Your task to perform on an android device: turn off data saver in the chrome app Image 0: 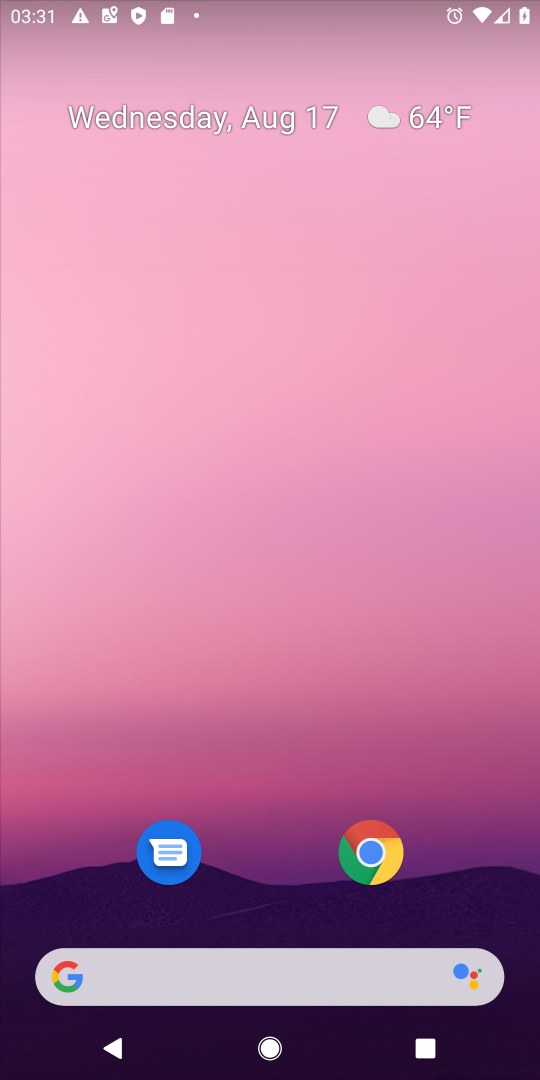
Step 0: drag from (239, 817) to (266, 37)
Your task to perform on an android device: turn off data saver in the chrome app Image 1: 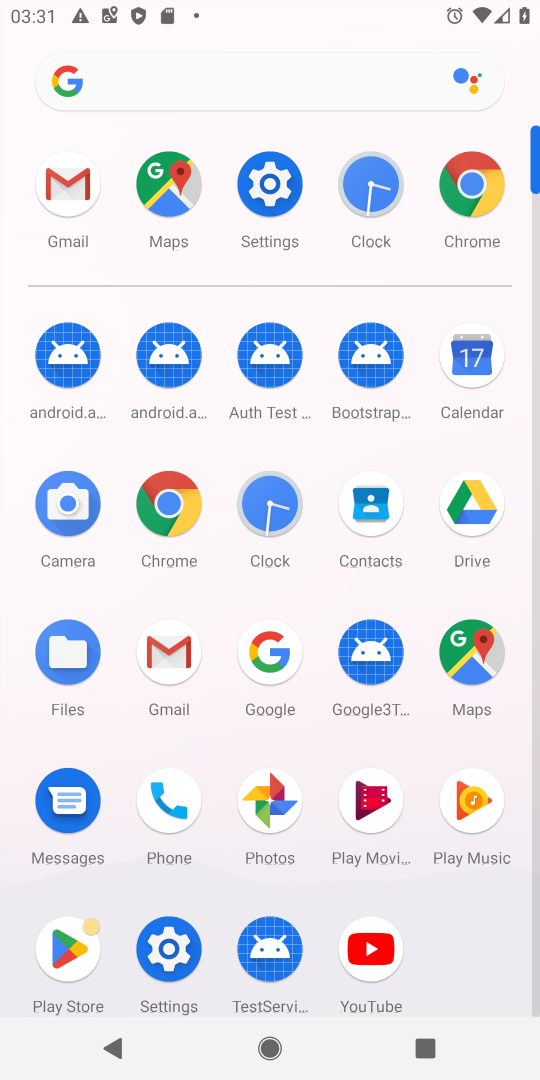
Step 1: click (165, 508)
Your task to perform on an android device: turn off data saver in the chrome app Image 2: 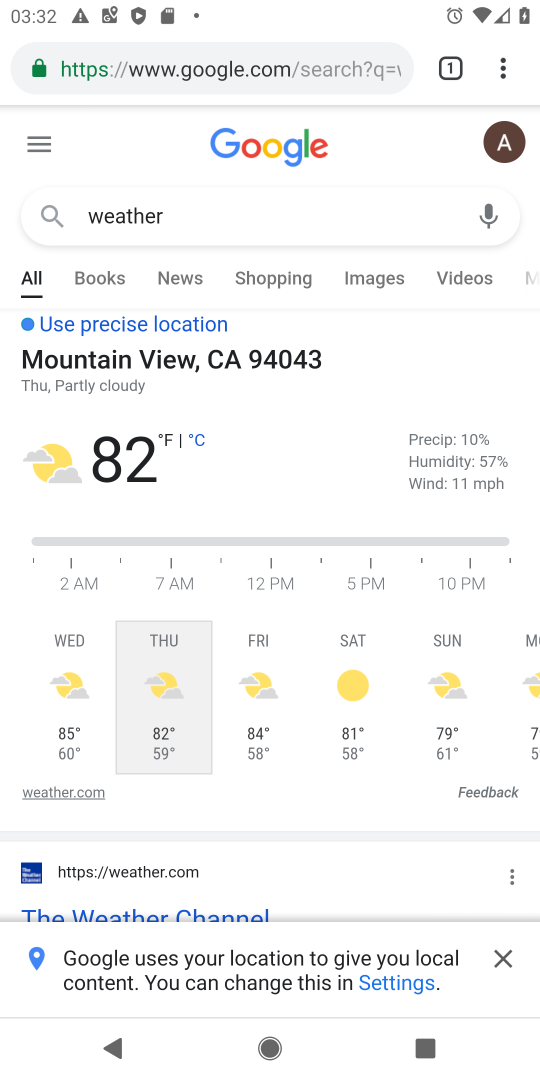
Step 2: drag from (516, 50) to (283, 764)
Your task to perform on an android device: turn off data saver in the chrome app Image 3: 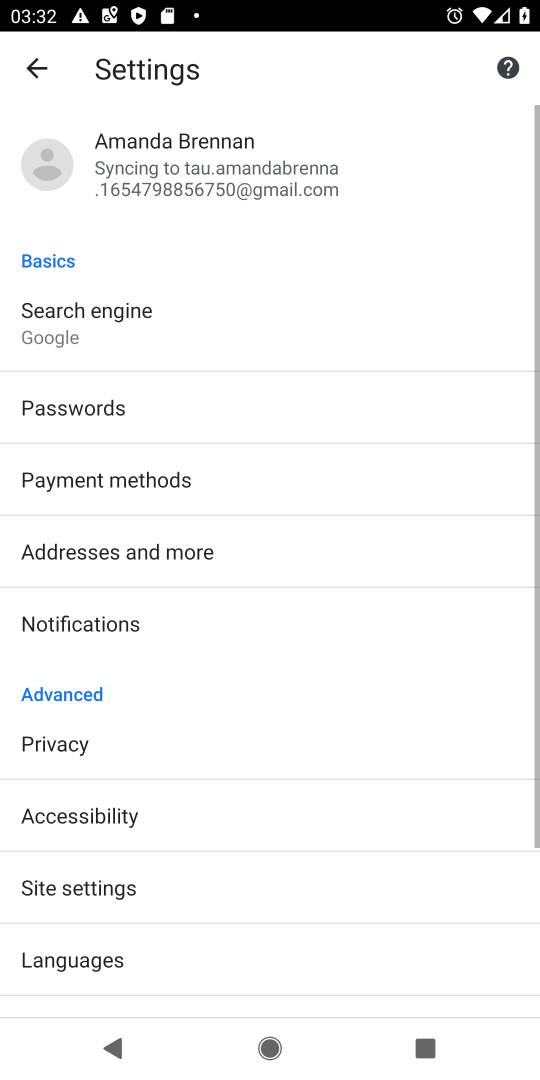
Step 3: drag from (245, 798) to (358, 50)
Your task to perform on an android device: turn off data saver in the chrome app Image 4: 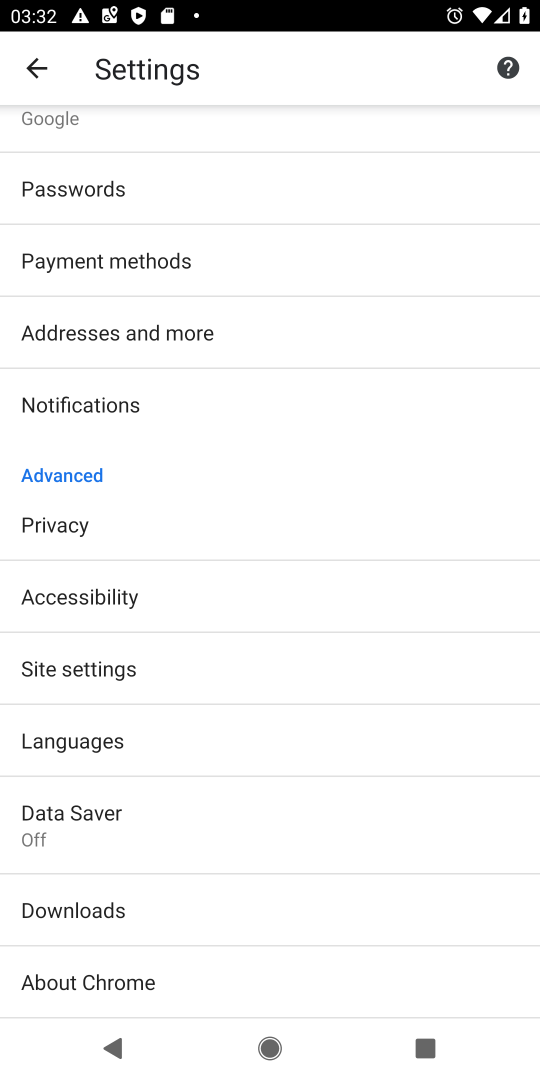
Step 4: click (58, 812)
Your task to perform on an android device: turn off data saver in the chrome app Image 5: 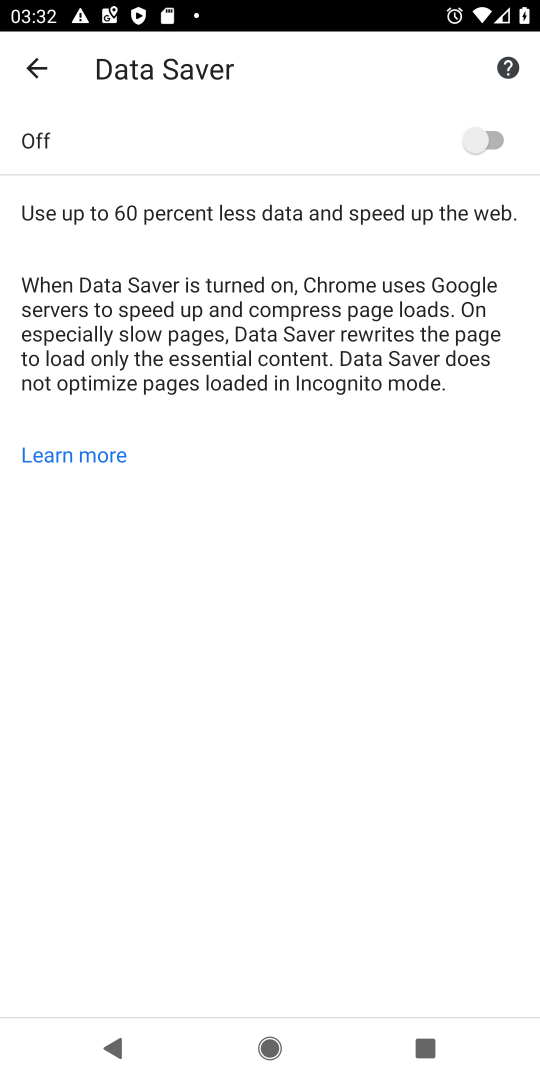
Step 5: task complete